Your task to perform on an android device: check the backup settings in the google photos Image 0: 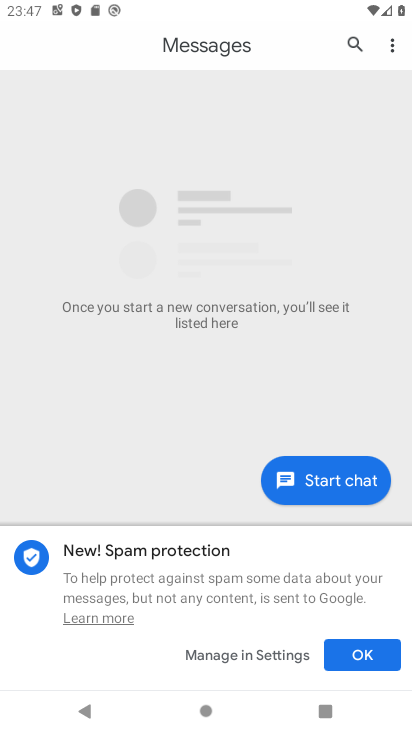
Step 0: press home button
Your task to perform on an android device: check the backup settings in the google photos Image 1: 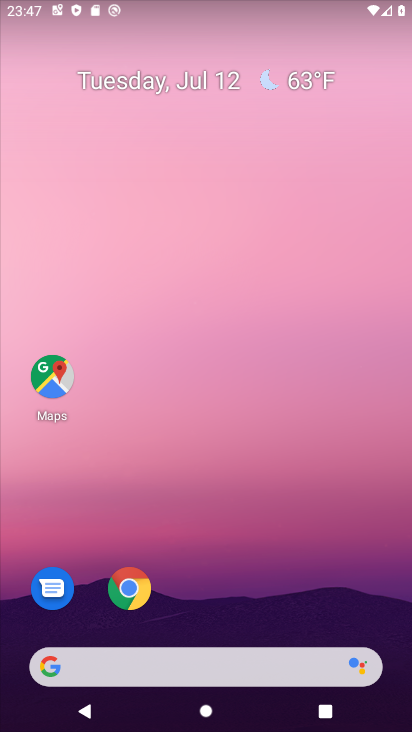
Step 1: drag from (73, 647) to (197, 225)
Your task to perform on an android device: check the backup settings in the google photos Image 2: 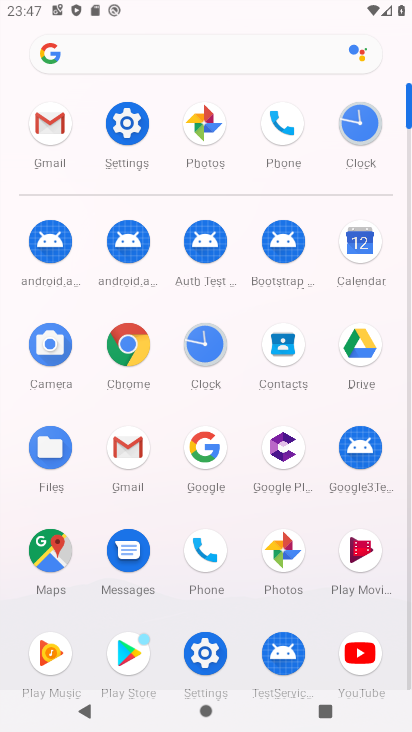
Step 2: click (277, 551)
Your task to perform on an android device: check the backup settings in the google photos Image 3: 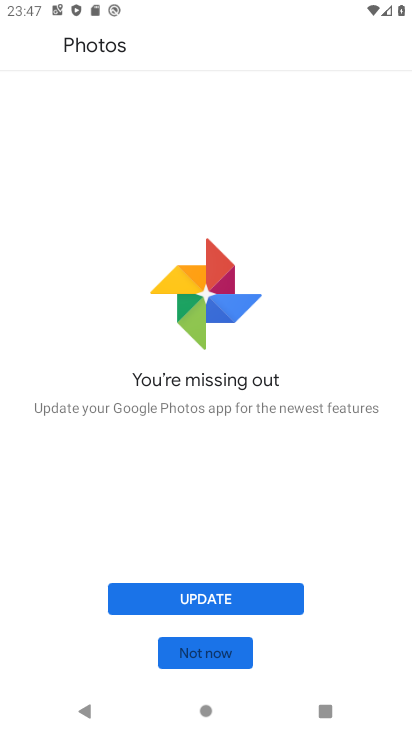
Step 3: click (187, 643)
Your task to perform on an android device: check the backup settings in the google photos Image 4: 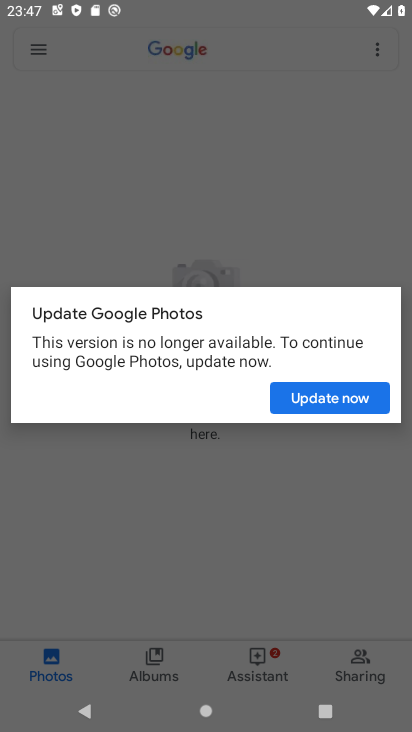
Step 4: click (321, 388)
Your task to perform on an android device: check the backup settings in the google photos Image 5: 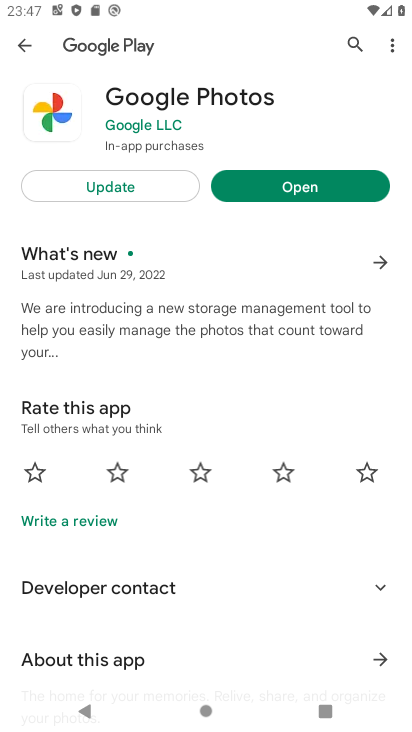
Step 5: click (281, 200)
Your task to perform on an android device: check the backup settings in the google photos Image 6: 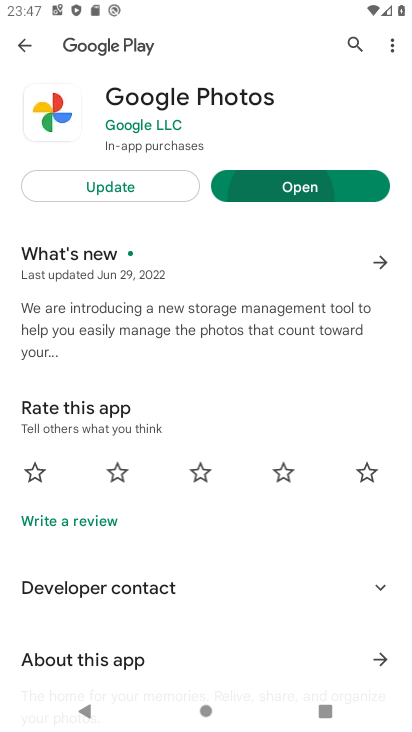
Step 6: click (281, 187)
Your task to perform on an android device: check the backup settings in the google photos Image 7: 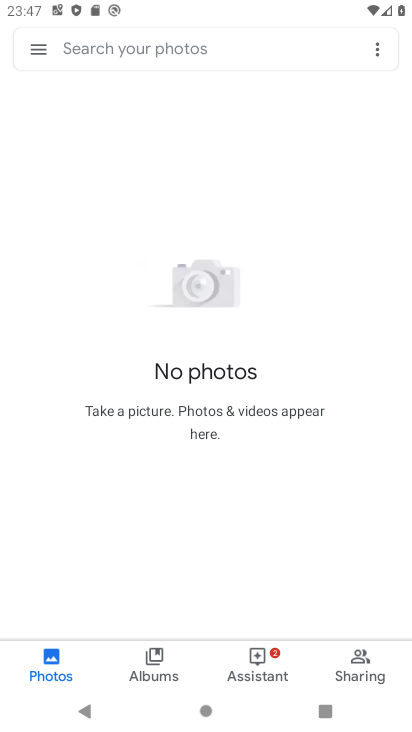
Step 7: click (39, 40)
Your task to perform on an android device: check the backup settings in the google photos Image 8: 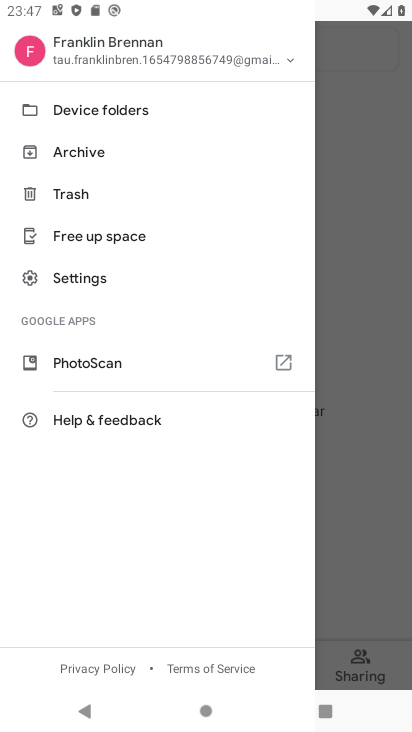
Step 8: click (82, 281)
Your task to perform on an android device: check the backup settings in the google photos Image 9: 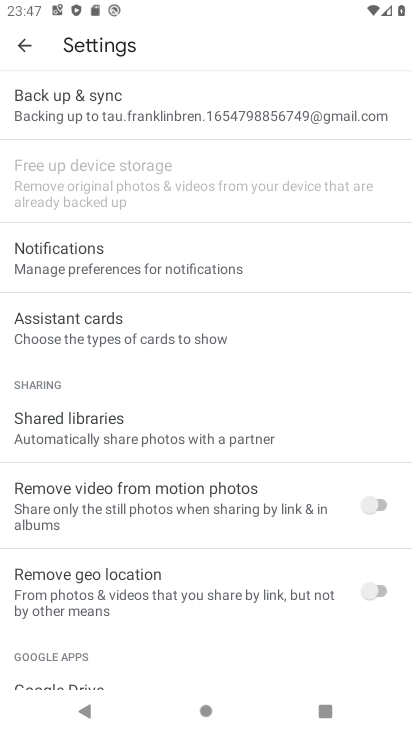
Step 9: click (67, 104)
Your task to perform on an android device: check the backup settings in the google photos Image 10: 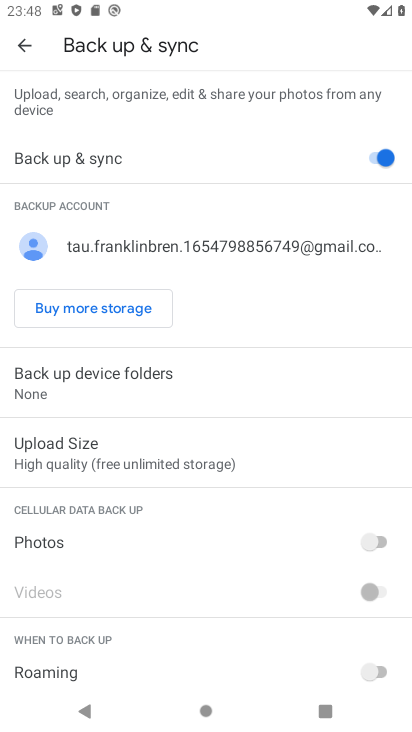
Step 10: task complete